Your task to perform on an android device: check out phone information Image 0: 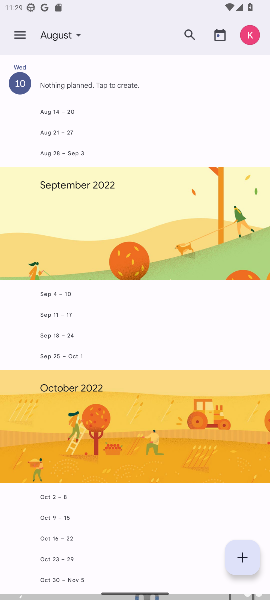
Step 0: press home button
Your task to perform on an android device: check out phone information Image 1: 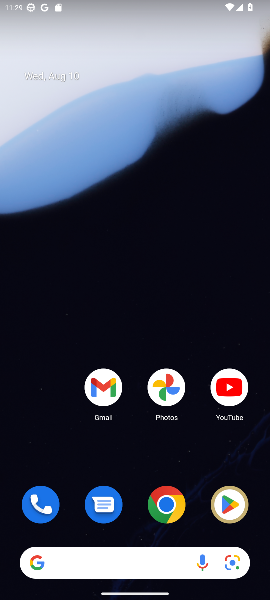
Step 1: drag from (57, 429) to (98, 77)
Your task to perform on an android device: check out phone information Image 2: 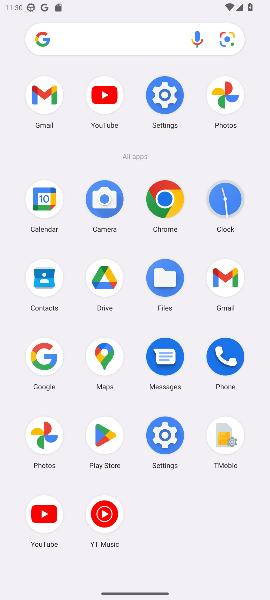
Step 2: click (171, 88)
Your task to perform on an android device: check out phone information Image 3: 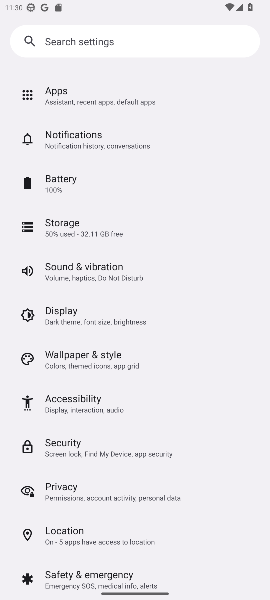
Step 3: drag from (179, 520) to (201, 386)
Your task to perform on an android device: check out phone information Image 4: 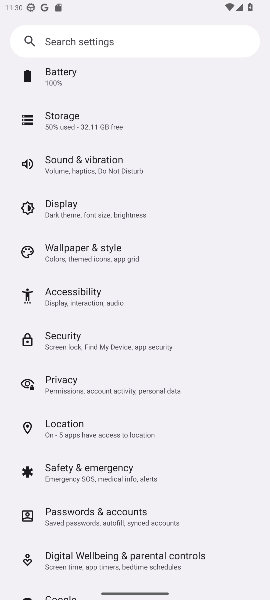
Step 4: drag from (68, 539) to (91, 261)
Your task to perform on an android device: check out phone information Image 5: 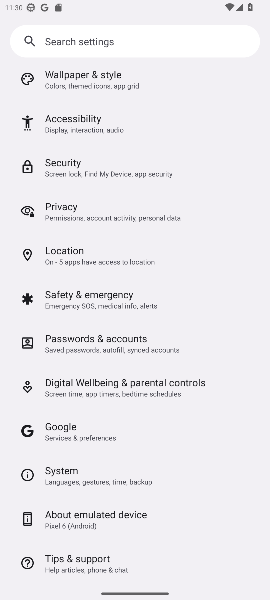
Step 5: click (63, 515)
Your task to perform on an android device: check out phone information Image 6: 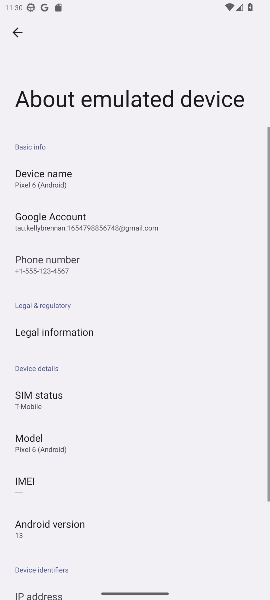
Step 6: drag from (69, 499) to (64, 316)
Your task to perform on an android device: check out phone information Image 7: 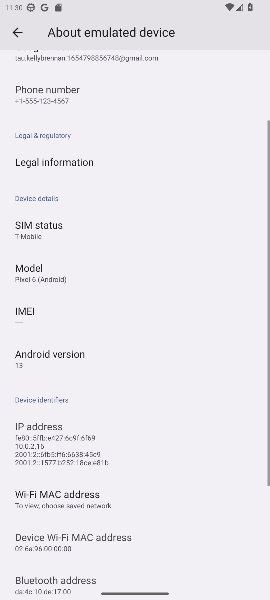
Step 7: drag from (109, 524) to (111, 493)
Your task to perform on an android device: check out phone information Image 8: 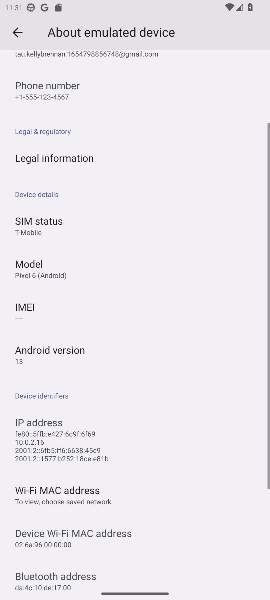
Step 8: click (78, 156)
Your task to perform on an android device: check out phone information Image 9: 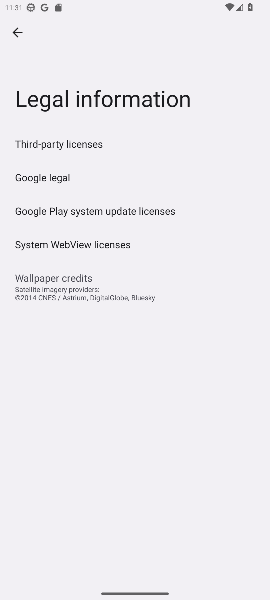
Step 9: task complete